Your task to perform on an android device: What's on my calendar today? Image 0: 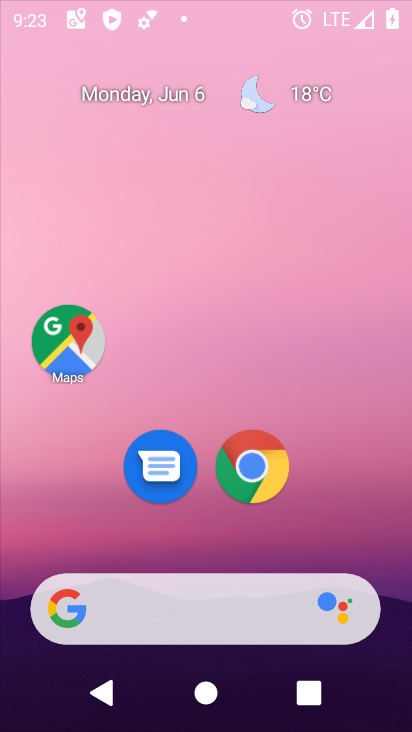
Step 0: drag from (185, 586) to (240, 159)
Your task to perform on an android device: What's on my calendar today? Image 1: 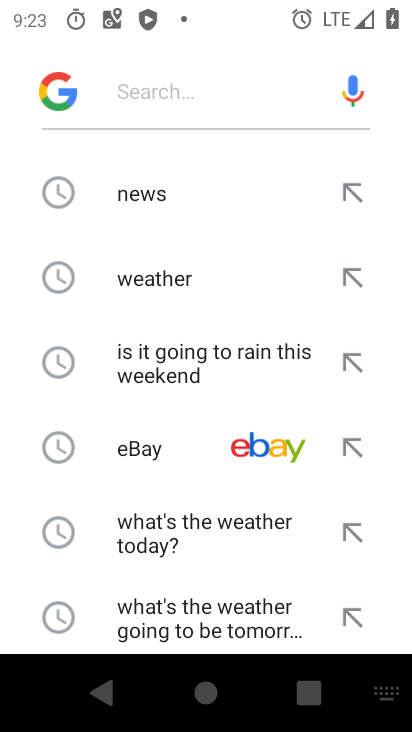
Step 1: press home button
Your task to perform on an android device: What's on my calendar today? Image 2: 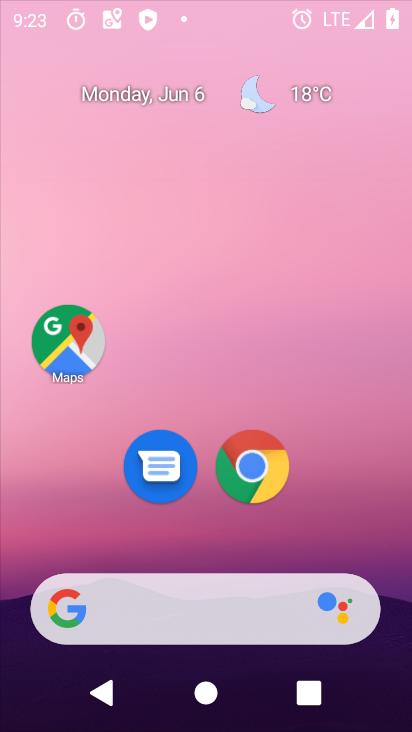
Step 2: drag from (230, 589) to (274, 166)
Your task to perform on an android device: What's on my calendar today? Image 3: 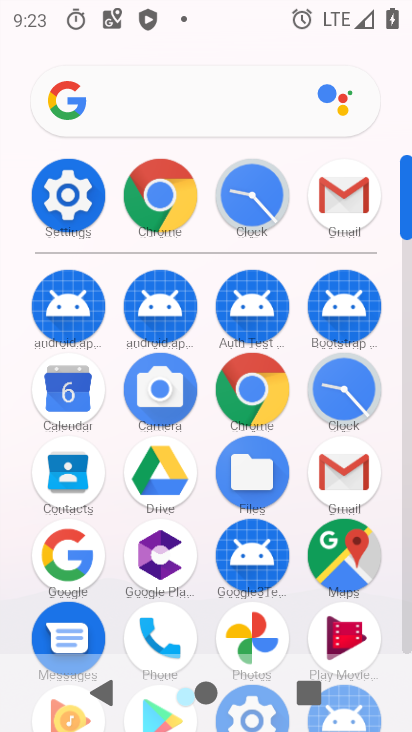
Step 3: click (67, 383)
Your task to perform on an android device: What's on my calendar today? Image 4: 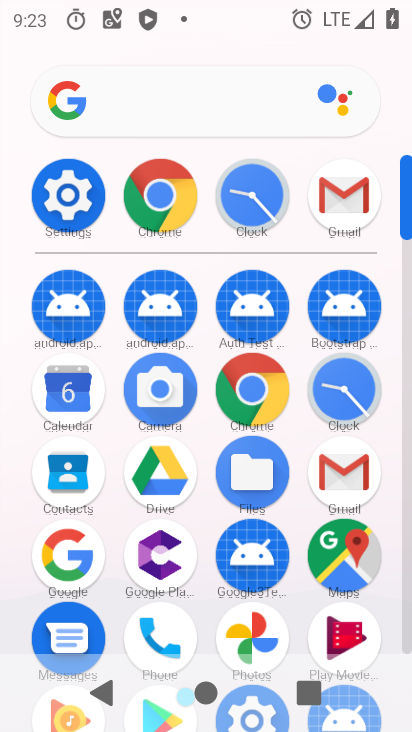
Step 4: click (67, 383)
Your task to perform on an android device: What's on my calendar today? Image 5: 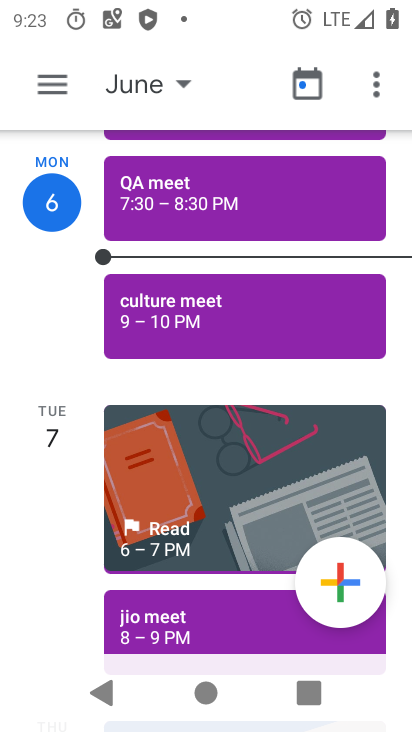
Step 5: drag from (261, 546) to (325, 148)
Your task to perform on an android device: What's on my calendar today? Image 6: 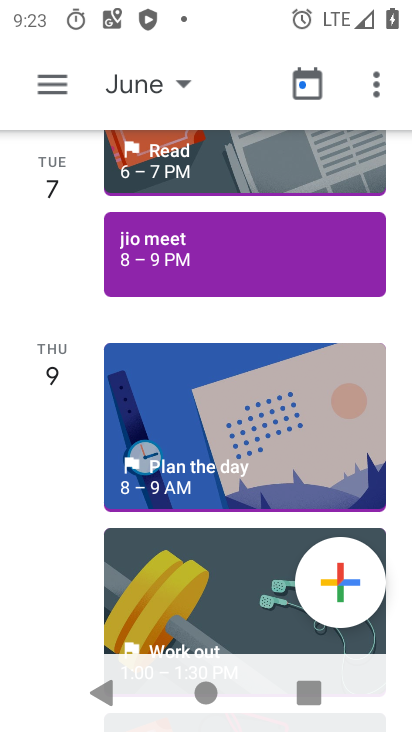
Step 6: click (129, 81)
Your task to perform on an android device: What's on my calendar today? Image 7: 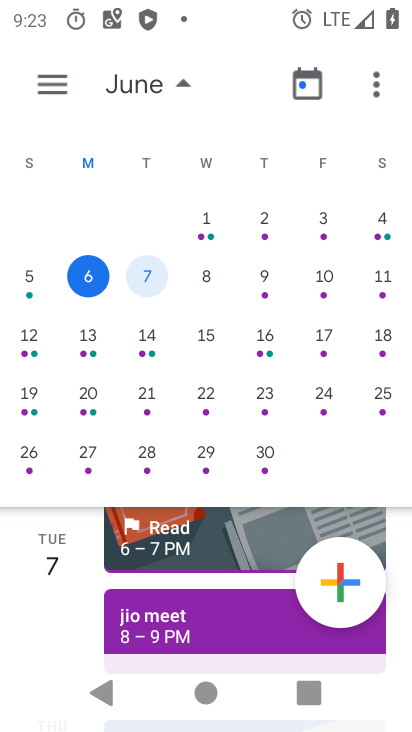
Step 7: click (94, 288)
Your task to perform on an android device: What's on my calendar today? Image 8: 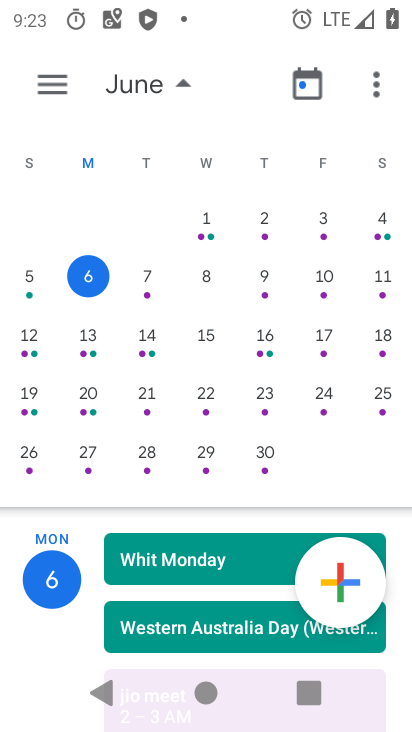
Step 8: task complete